Your task to perform on an android device: see creations saved in the google photos Image 0: 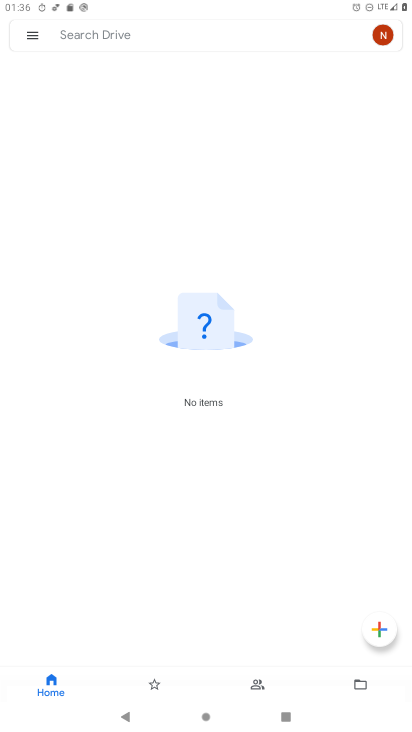
Step 0: press home button
Your task to perform on an android device: see creations saved in the google photos Image 1: 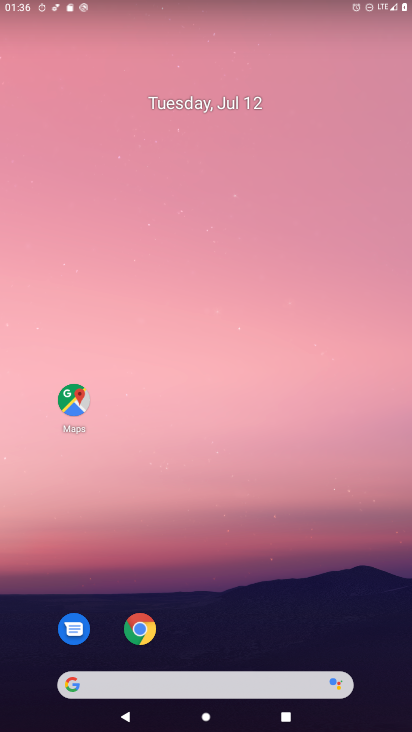
Step 1: drag from (21, 689) to (308, 38)
Your task to perform on an android device: see creations saved in the google photos Image 2: 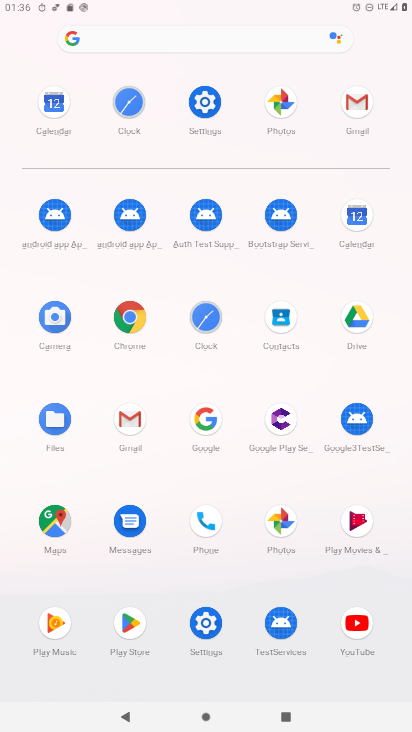
Step 2: click (283, 531)
Your task to perform on an android device: see creations saved in the google photos Image 3: 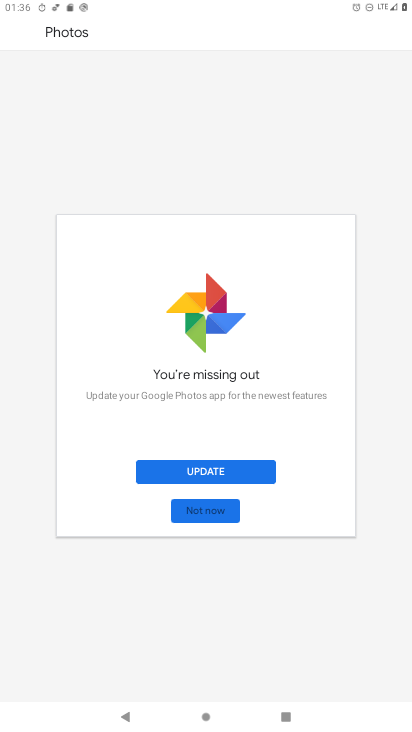
Step 3: click (189, 446)
Your task to perform on an android device: see creations saved in the google photos Image 4: 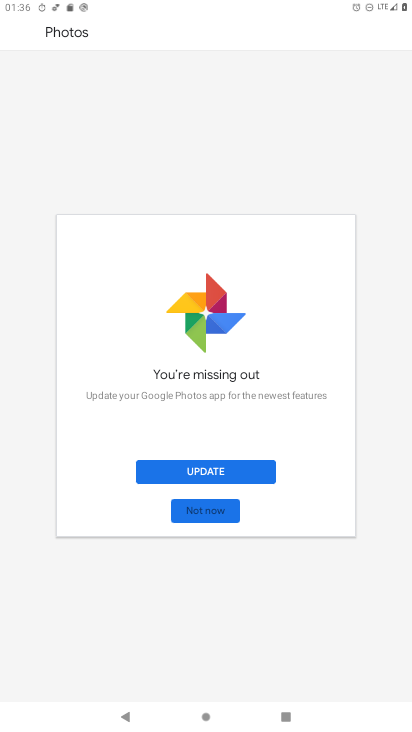
Step 4: click (197, 484)
Your task to perform on an android device: see creations saved in the google photos Image 5: 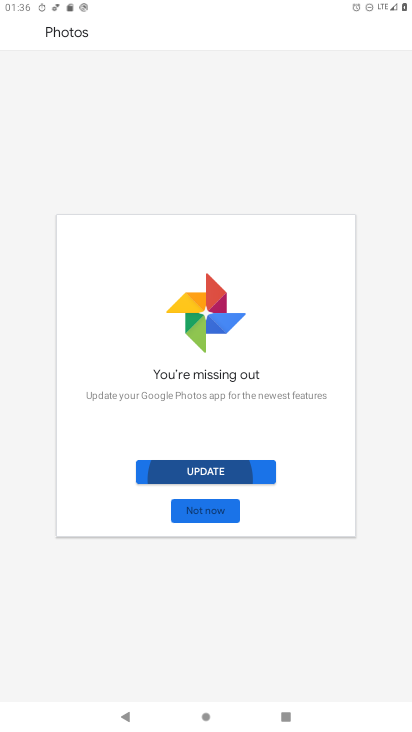
Step 5: click (200, 478)
Your task to perform on an android device: see creations saved in the google photos Image 6: 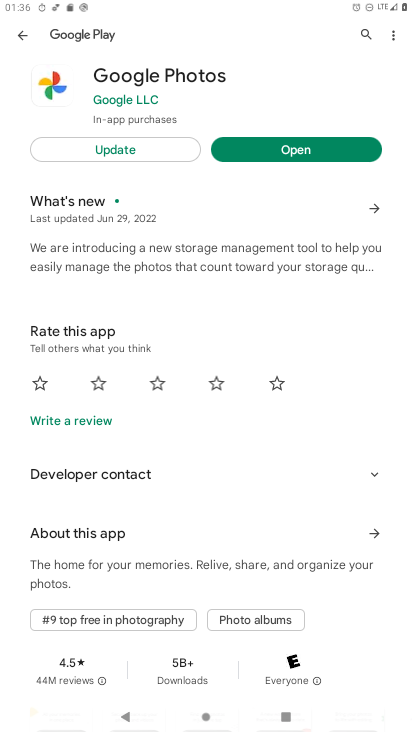
Step 6: click (296, 152)
Your task to perform on an android device: see creations saved in the google photos Image 7: 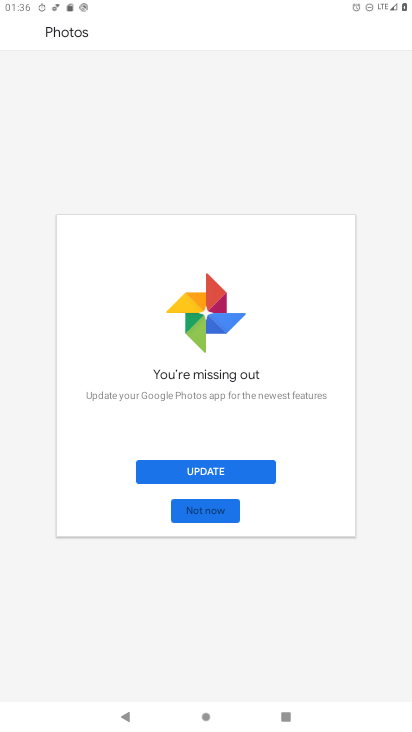
Step 7: click (227, 511)
Your task to perform on an android device: see creations saved in the google photos Image 8: 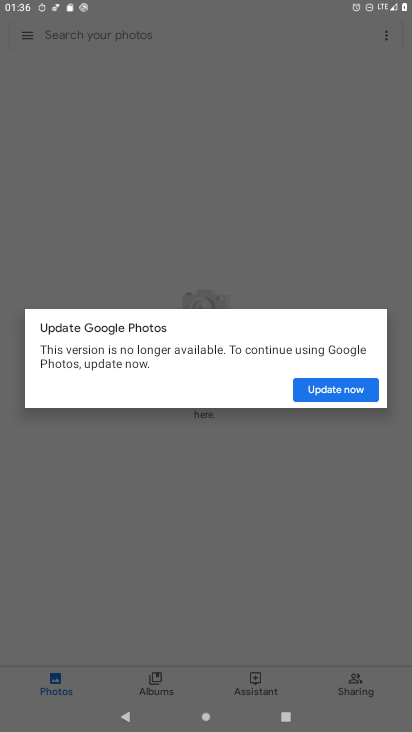
Step 8: click (337, 387)
Your task to perform on an android device: see creations saved in the google photos Image 9: 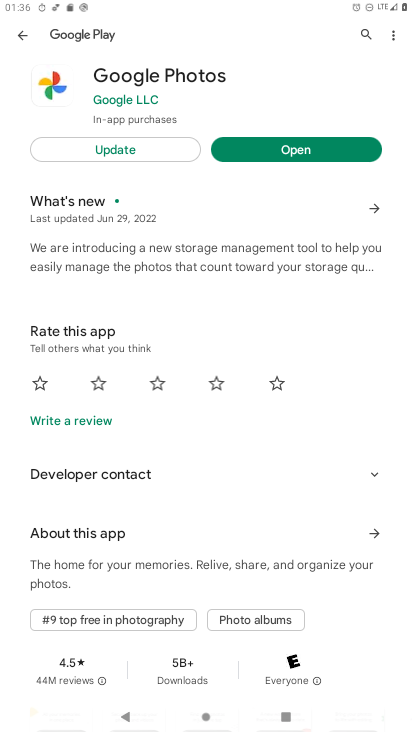
Step 9: task complete